Your task to perform on an android device: Search for logitech g903 on ebay, select the first entry, add it to the cart, then select checkout. Image 0: 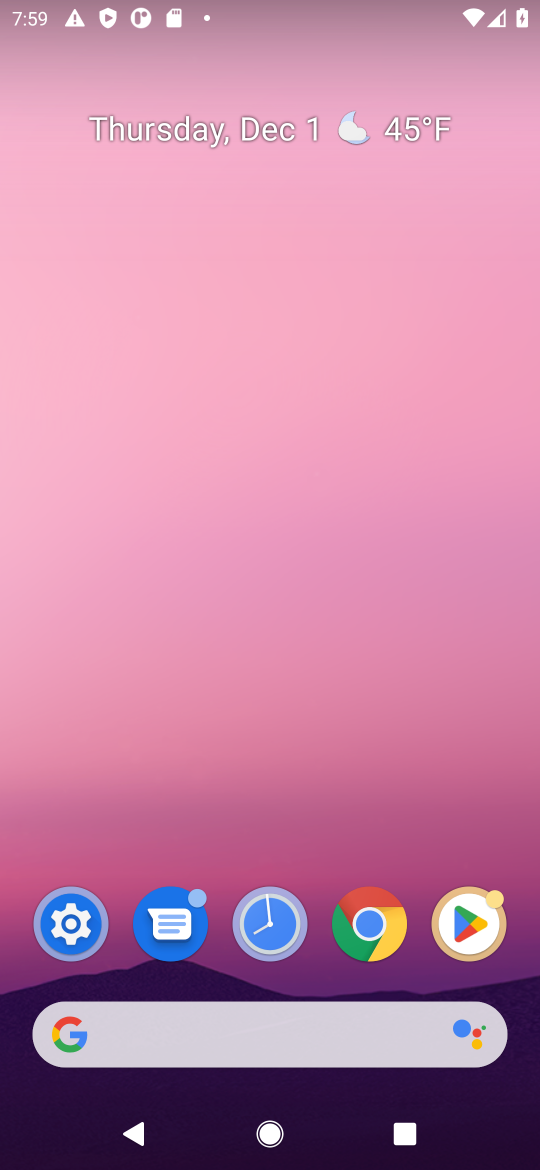
Step 0: click (312, 1043)
Your task to perform on an android device: Search for logitech g903 on ebay, select the first entry, add it to the cart, then select checkout. Image 1: 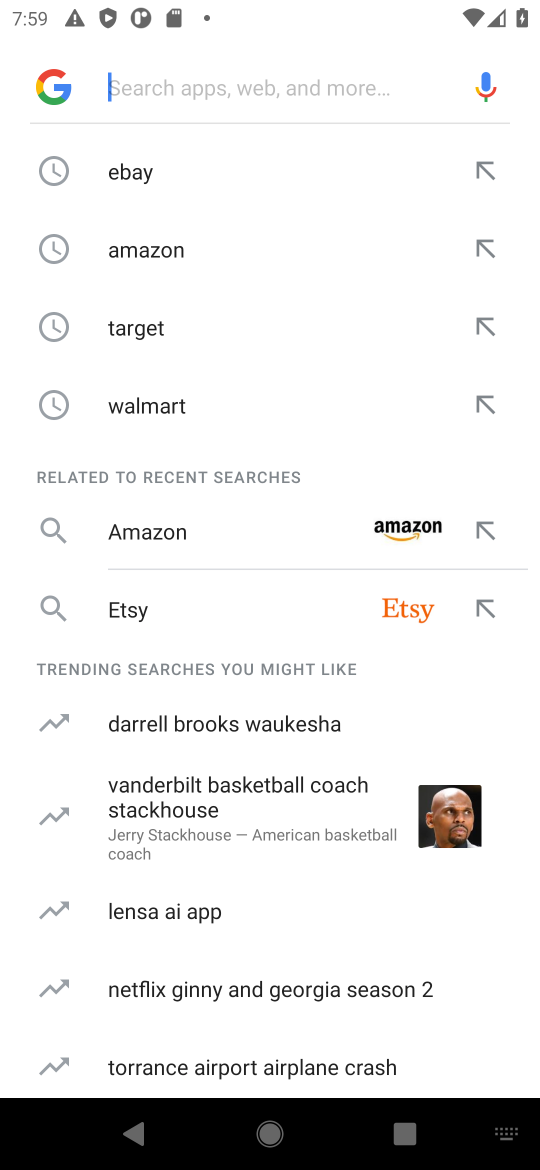
Step 1: click (241, 184)
Your task to perform on an android device: Search for logitech g903 on ebay, select the first entry, add it to the cart, then select checkout. Image 2: 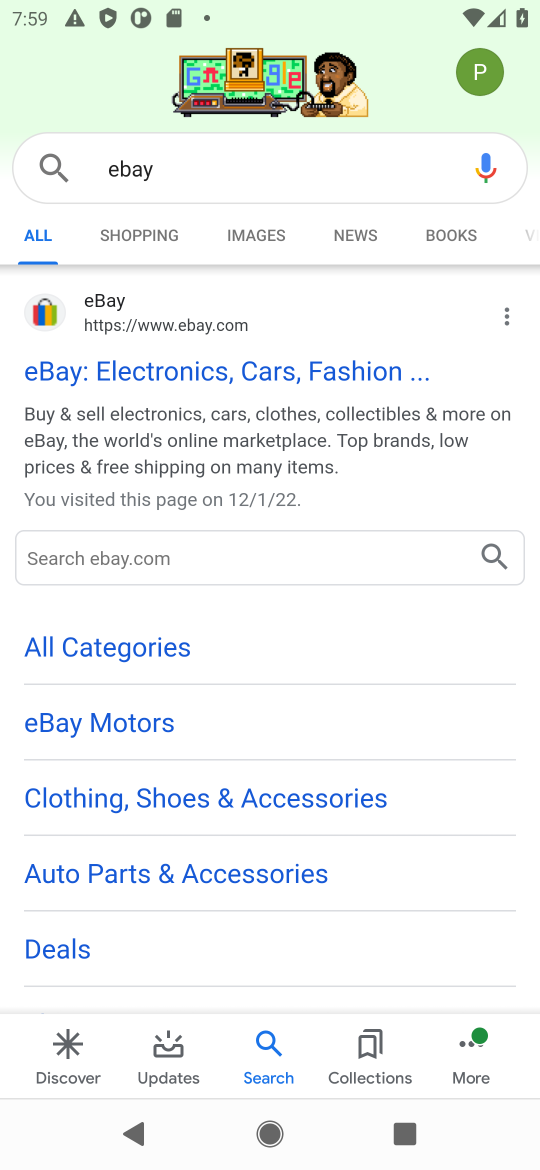
Step 2: click (289, 387)
Your task to perform on an android device: Search for logitech g903 on ebay, select the first entry, add it to the cart, then select checkout. Image 3: 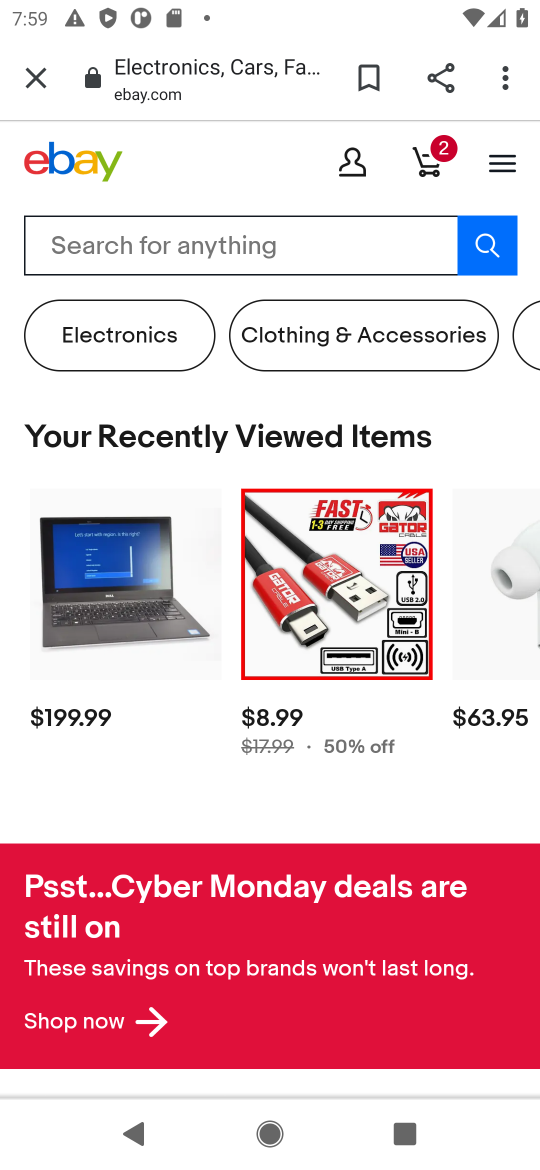
Step 3: click (197, 256)
Your task to perform on an android device: Search for logitech g903 on ebay, select the first entry, add it to the cart, then select checkout. Image 4: 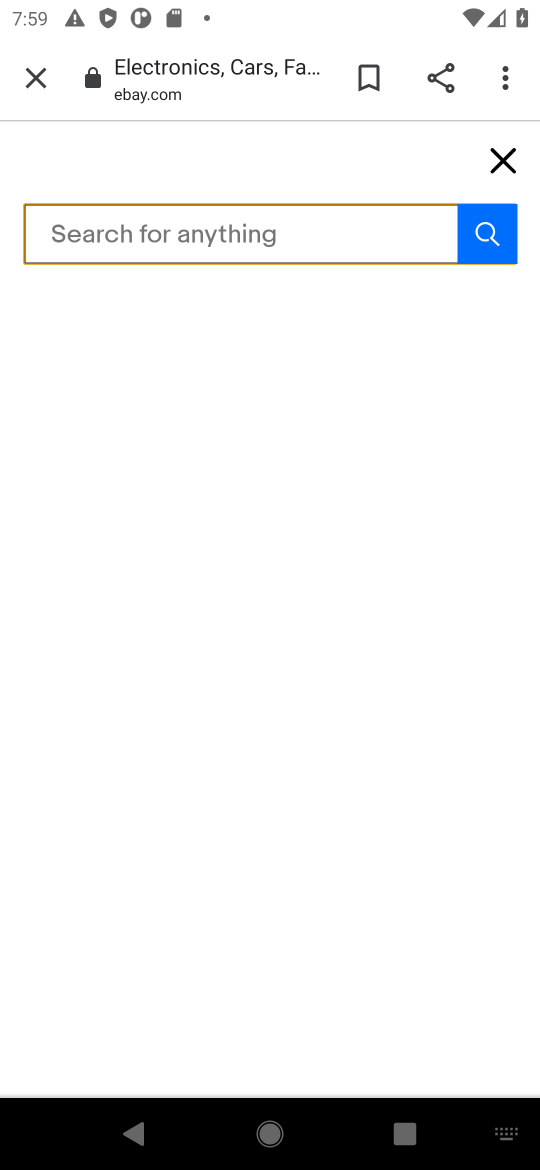
Step 4: type "logitech g903"
Your task to perform on an android device: Search for logitech g903 on ebay, select the first entry, add it to the cart, then select checkout. Image 5: 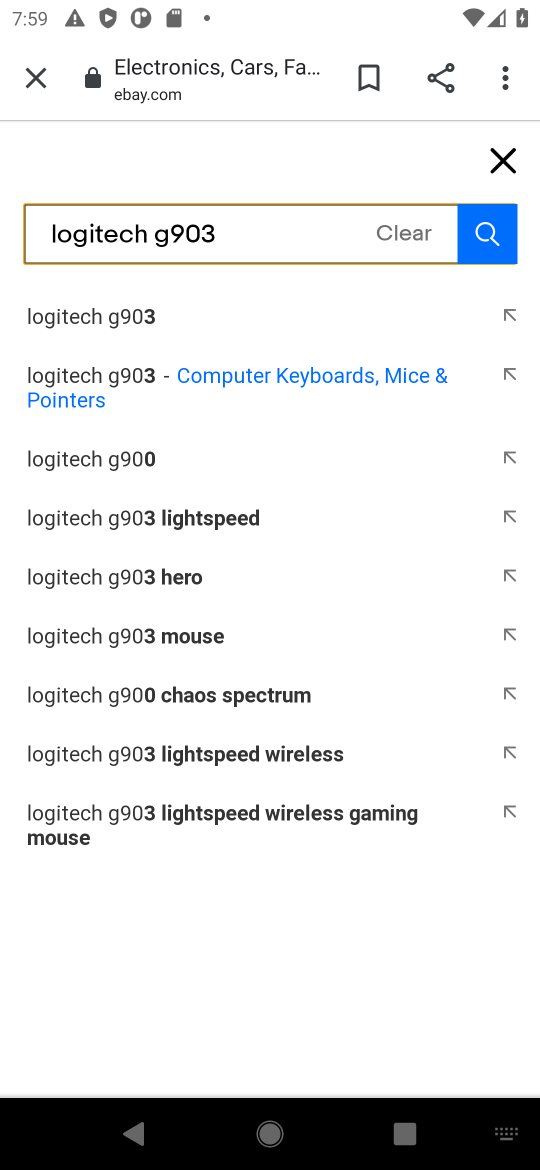
Step 5: click (150, 371)
Your task to perform on an android device: Search for logitech g903 on ebay, select the first entry, add it to the cart, then select checkout. Image 6: 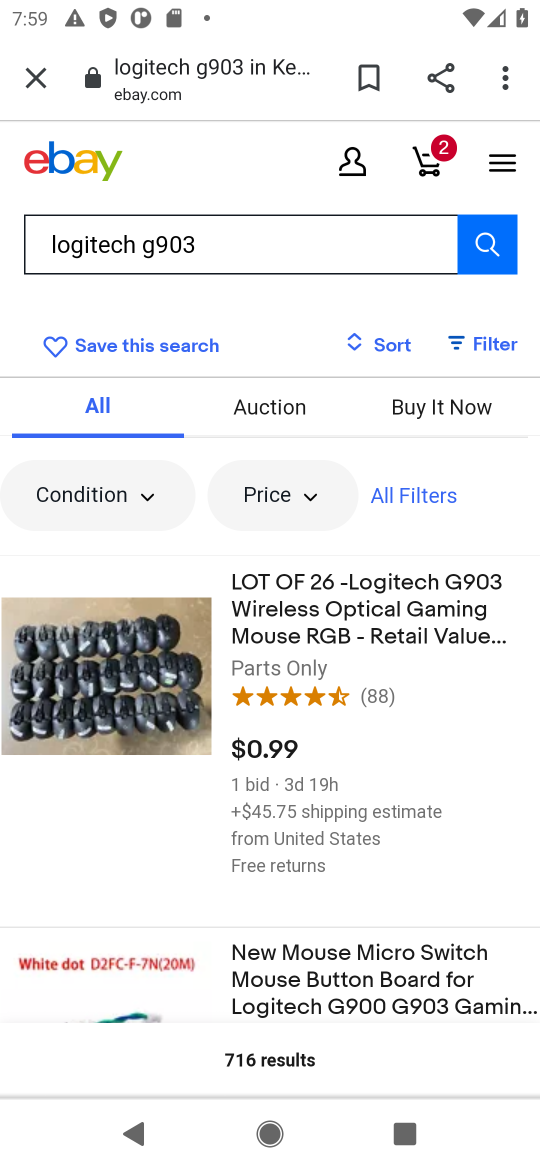
Step 6: click (327, 605)
Your task to perform on an android device: Search for logitech g903 on ebay, select the first entry, add it to the cart, then select checkout. Image 7: 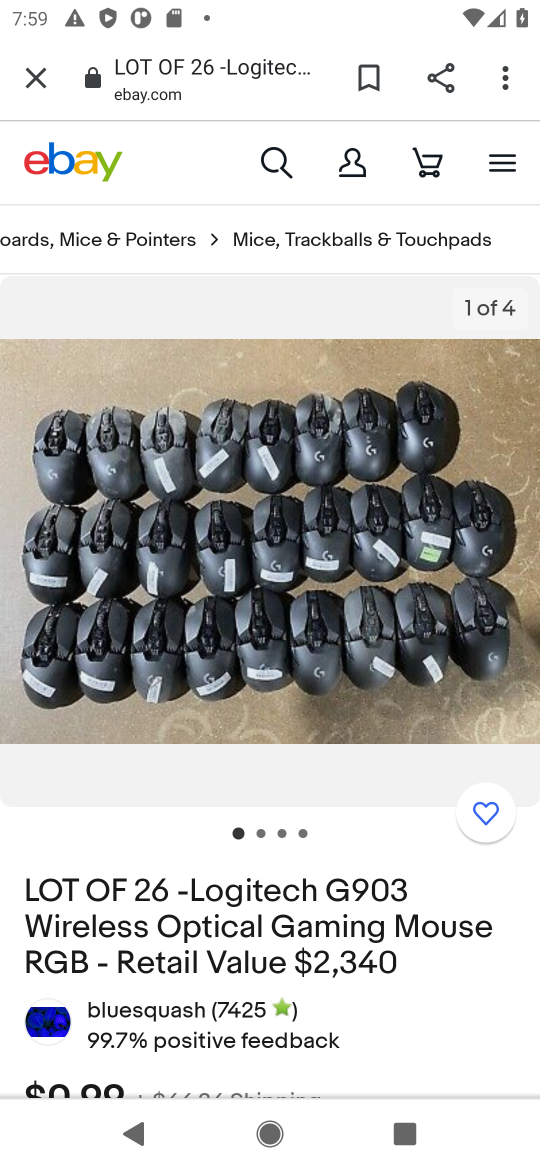
Step 7: drag from (340, 823) to (308, 459)
Your task to perform on an android device: Search for logitech g903 on ebay, select the first entry, add it to the cart, then select checkout. Image 8: 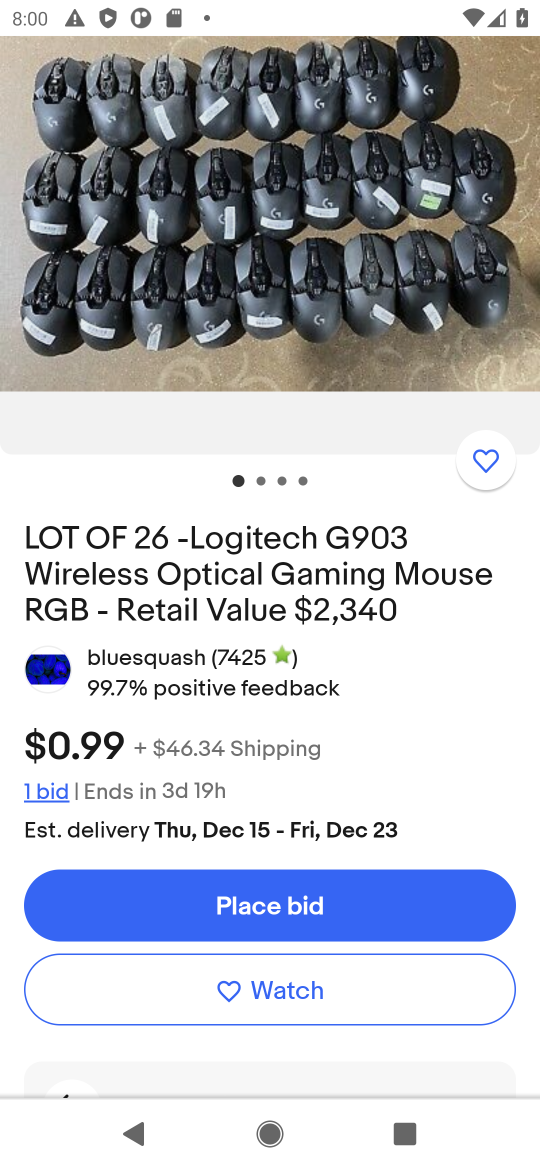
Step 8: drag from (471, 1052) to (422, 472)
Your task to perform on an android device: Search for logitech g903 on ebay, select the first entry, add it to the cart, then select checkout. Image 9: 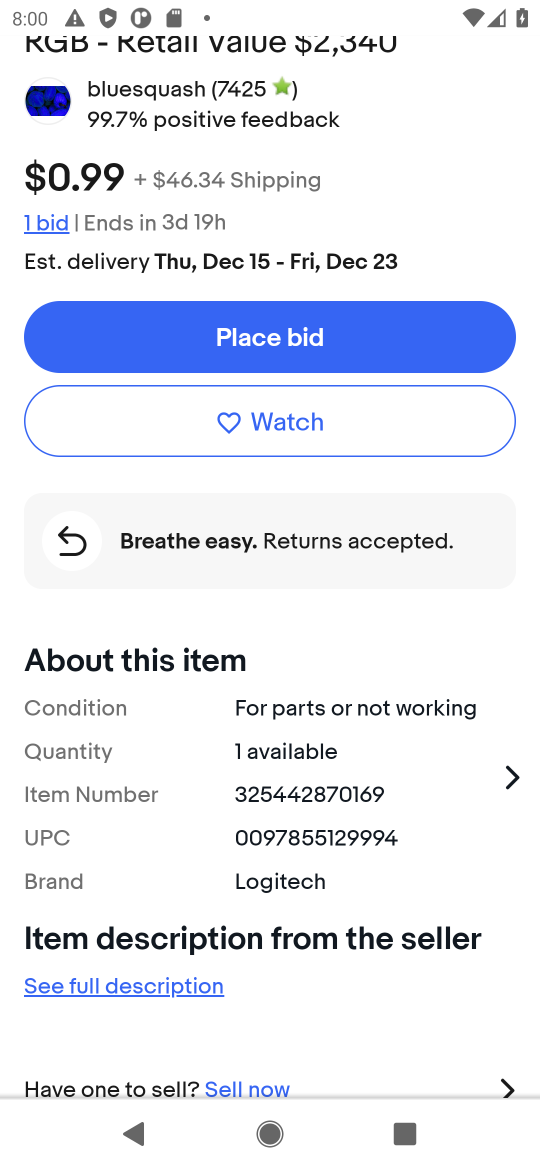
Step 9: click (247, 328)
Your task to perform on an android device: Search for logitech g903 on ebay, select the first entry, add it to the cart, then select checkout. Image 10: 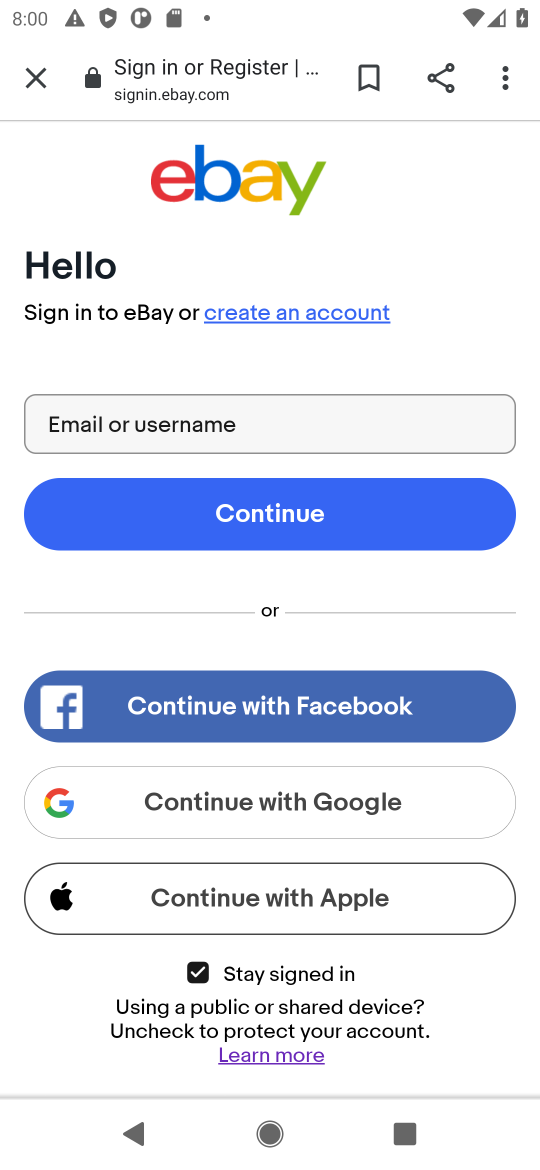
Step 10: task complete